Your task to perform on an android device: move a message to another label in the gmail app Image 0: 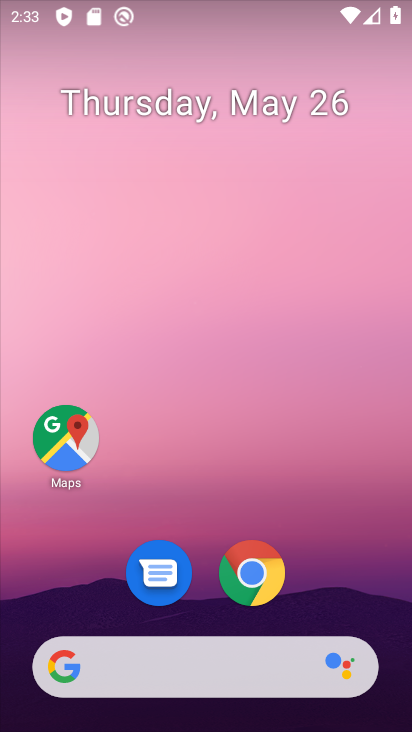
Step 0: drag from (185, 672) to (137, 17)
Your task to perform on an android device: move a message to another label in the gmail app Image 1: 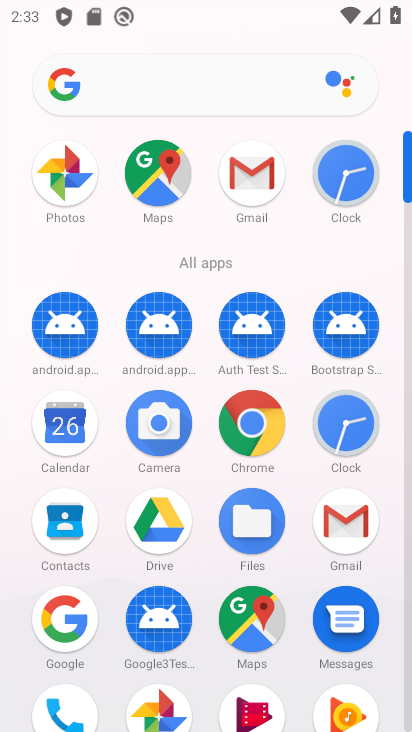
Step 1: drag from (224, 361) to (265, 35)
Your task to perform on an android device: move a message to another label in the gmail app Image 2: 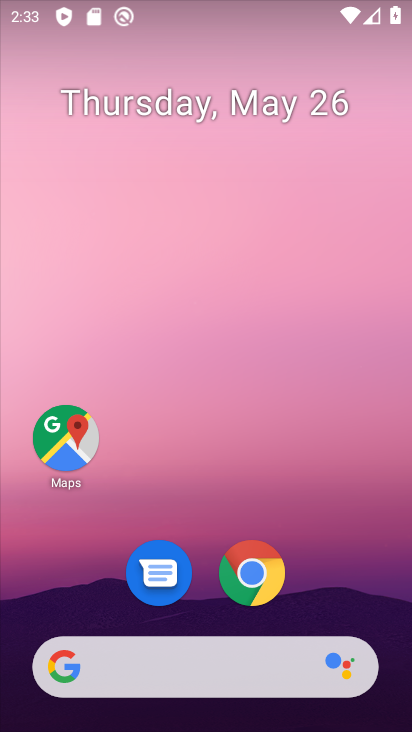
Step 2: click (327, 6)
Your task to perform on an android device: move a message to another label in the gmail app Image 3: 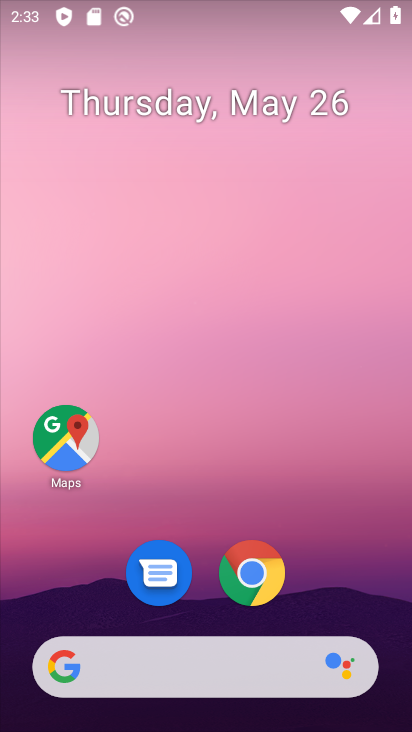
Step 3: drag from (196, 659) to (249, 61)
Your task to perform on an android device: move a message to another label in the gmail app Image 4: 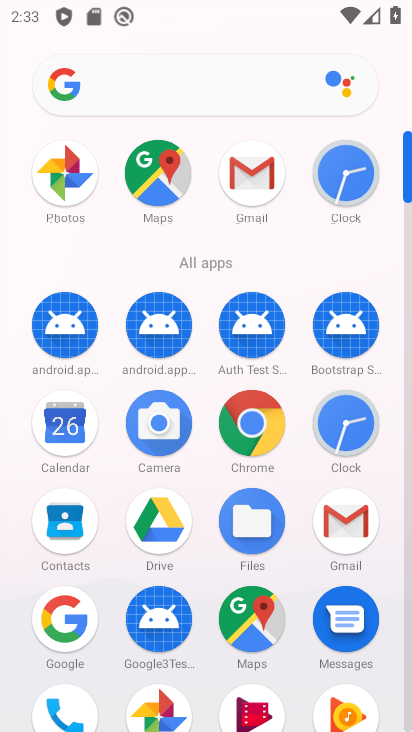
Step 4: click (240, 169)
Your task to perform on an android device: move a message to another label in the gmail app Image 5: 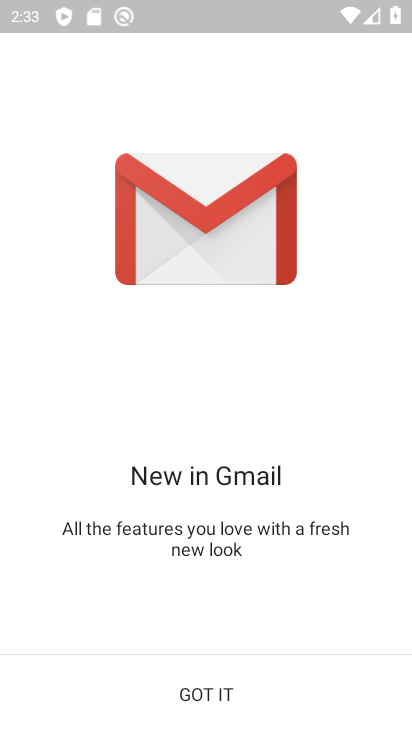
Step 5: click (164, 705)
Your task to perform on an android device: move a message to another label in the gmail app Image 6: 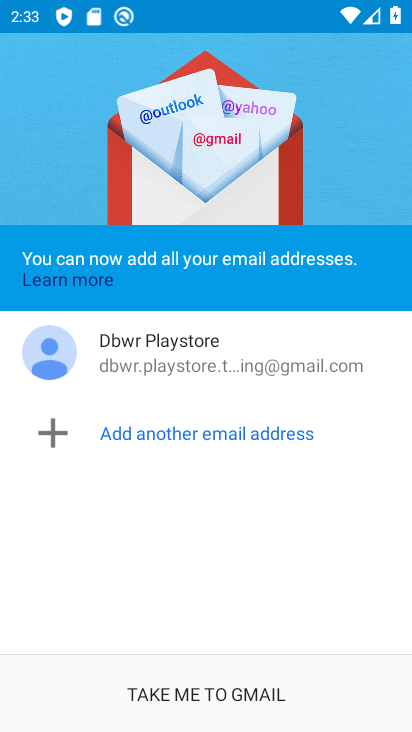
Step 6: click (226, 685)
Your task to perform on an android device: move a message to another label in the gmail app Image 7: 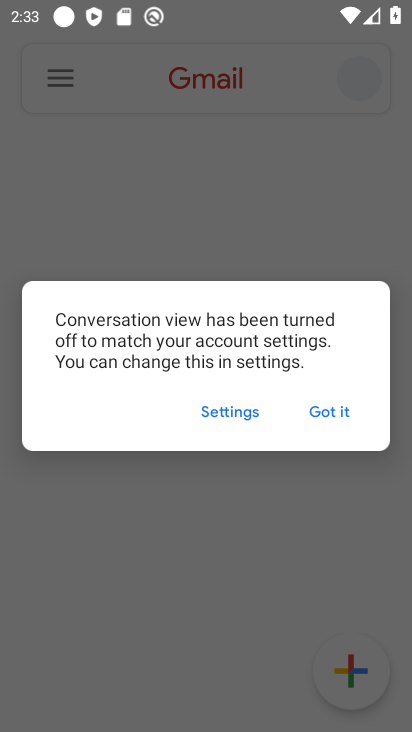
Step 7: click (213, 681)
Your task to perform on an android device: move a message to another label in the gmail app Image 8: 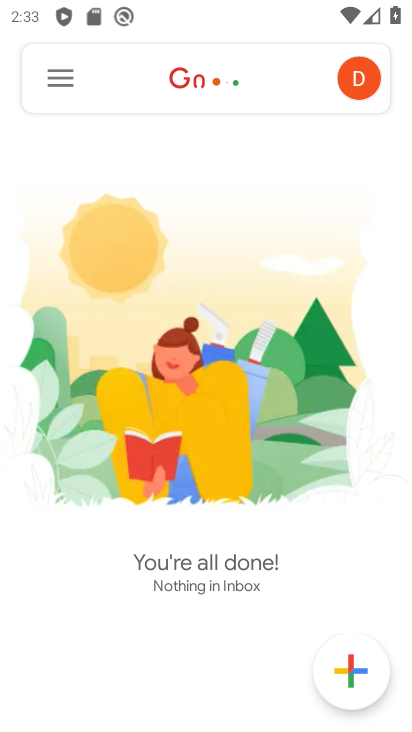
Step 8: click (48, 81)
Your task to perform on an android device: move a message to another label in the gmail app Image 9: 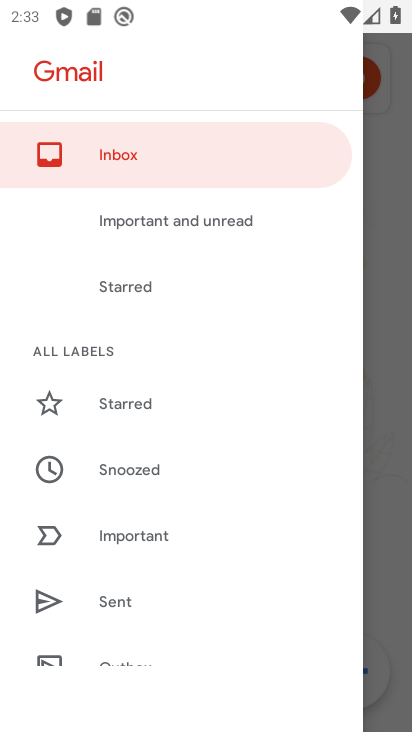
Step 9: drag from (230, 559) to (281, 1)
Your task to perform on an android device: move a message to another label in the gmail app Image 10: 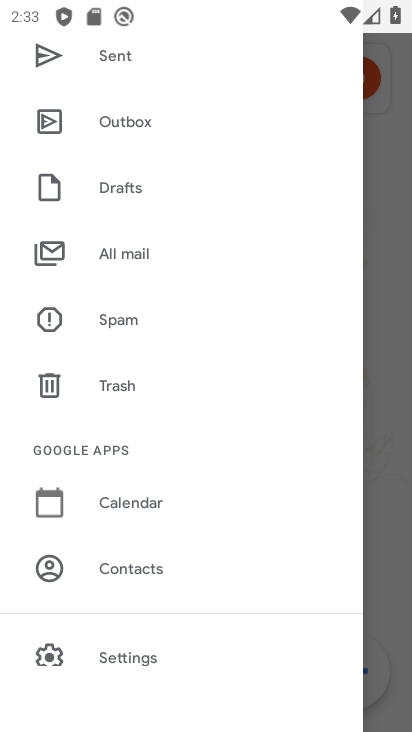
Step 10: click (138, 240)
Your task to perform on an android device: move a message to another label in the gmail app Image 11: 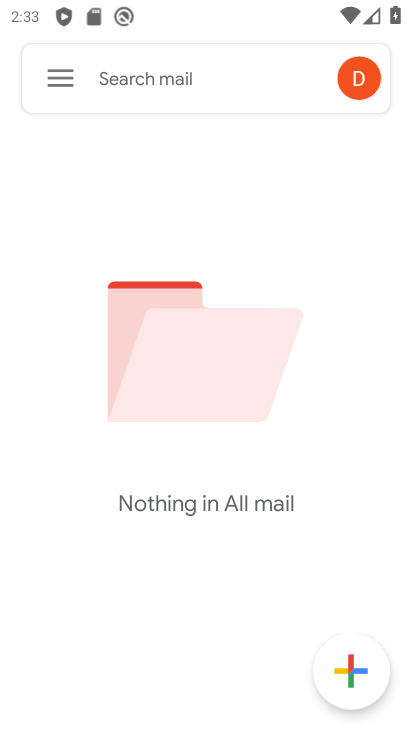
Step 11: task complete